Your task to perform on an android device: check android version Image 0: 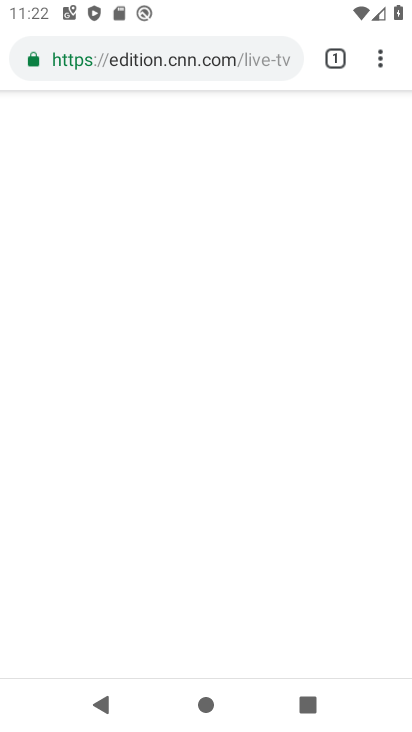
Step 0: press home button
Your task to perform on an android device: check android version Image 1: 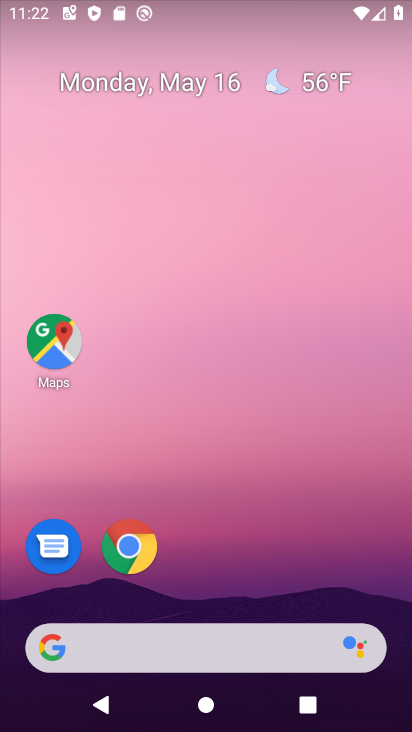
Step 1: drag from (239, 511) to (232, 2)
Your task to perform on an android device: check android version Image 2: 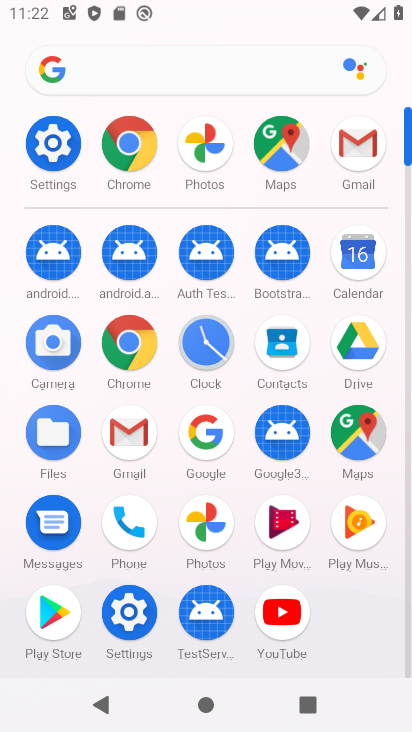
Step 2: click (65, 164)
Your task to perform on an android device: check android version Image 3: 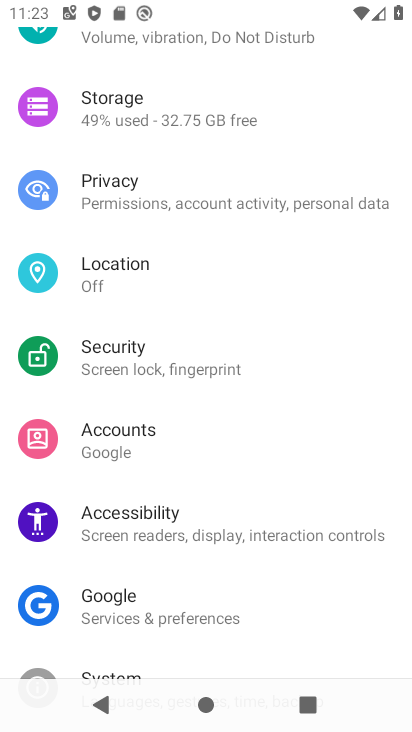
Step 3: drag from (234, 576) to (247, 140)
Your task to perform on an android device: check android version Image 4: 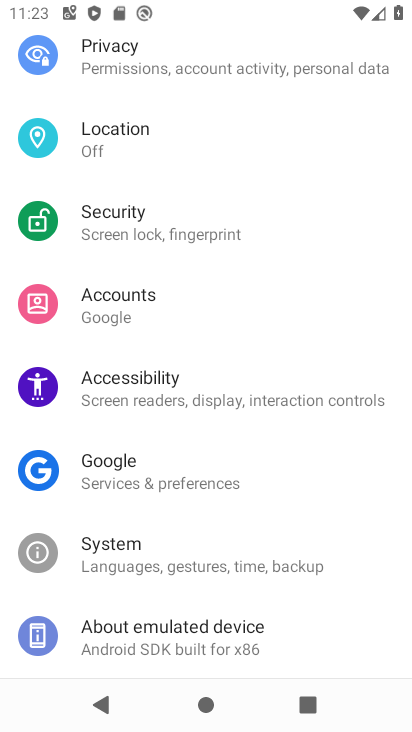
Step 4: click (143, 639)
Your task to perform on an android device: check android version Image 5: 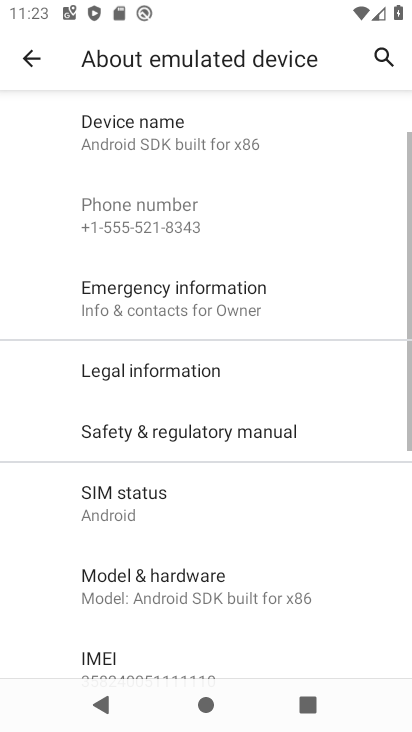
Step 5: drag from (142, 618) to (228, 131)
Your task to perform on an android device: check android version Image 6: 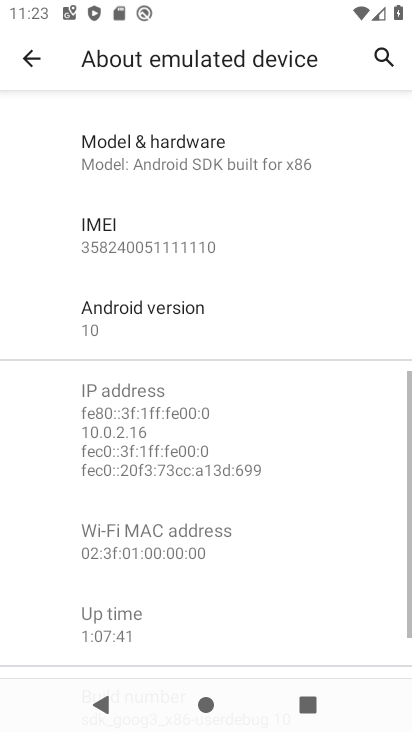
Step 6: click (132, 305)
Your task to perform on an android device: check android version Image 7: 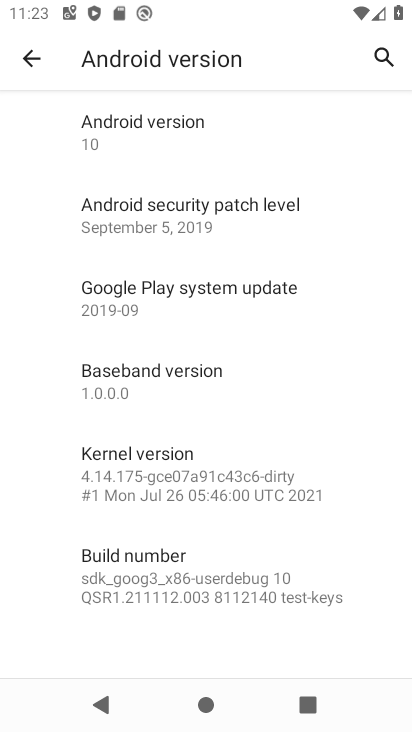
Step 7: task complete